Your task to perform on an android device: turn on sleep mode Image 0: 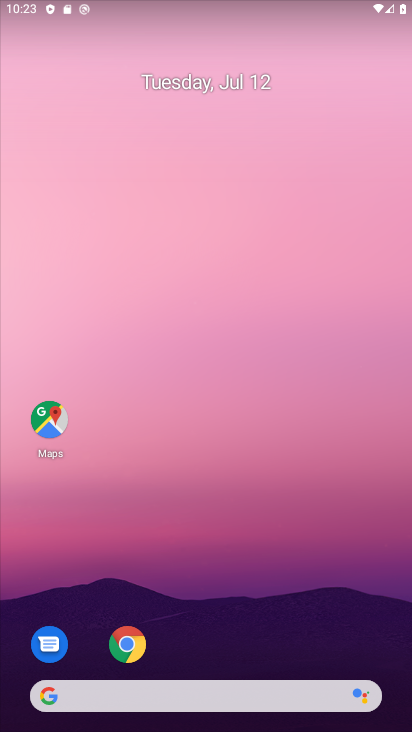
Step 0: drag from (225, 677) to (264, 288)
Your task to perform on an android device: turn on sleep mode Image 1: 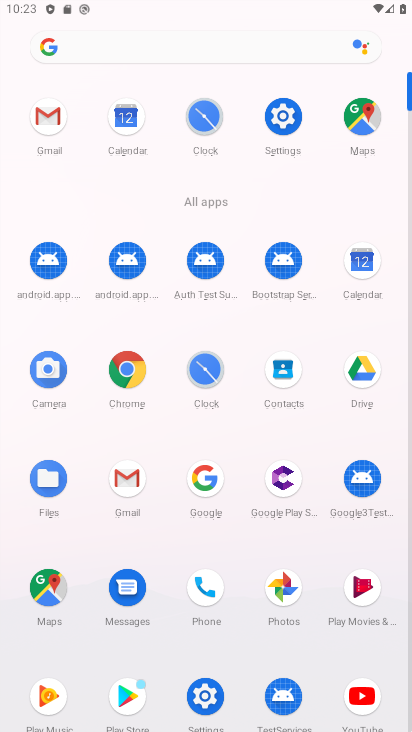
Step 1: click (281, 128)
Your task to perform on an android device: turn on sleep mode Image 2: 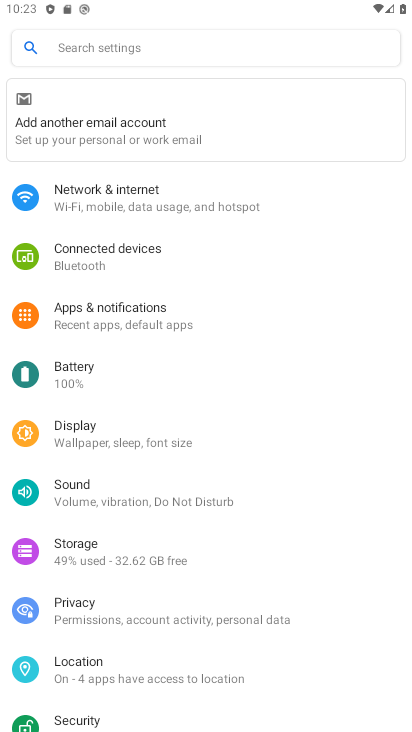
Step 2: click (165, 443)
Your task to perform on an android device: turn on sleep mode Image 3: 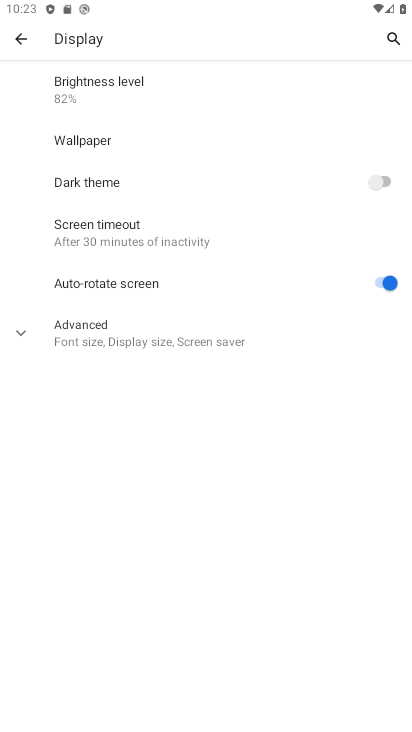
Step 3: click (126, 342)
Your task to perform on an android device: turn on sleep mode Image 4: 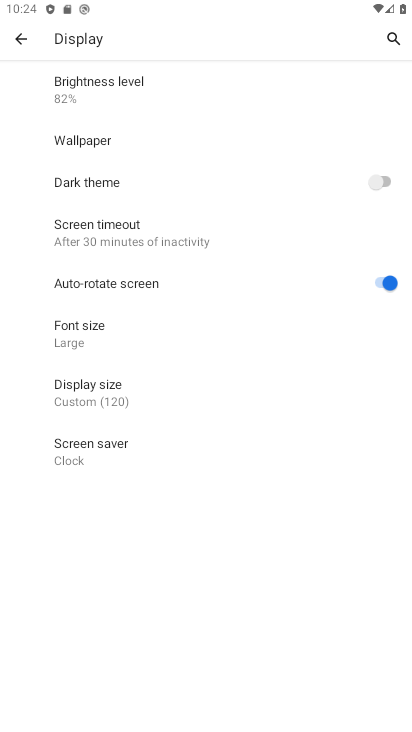
Step 4: click (113, 243)
Your task to perform on an android device: turn on sleep mode Image 5: 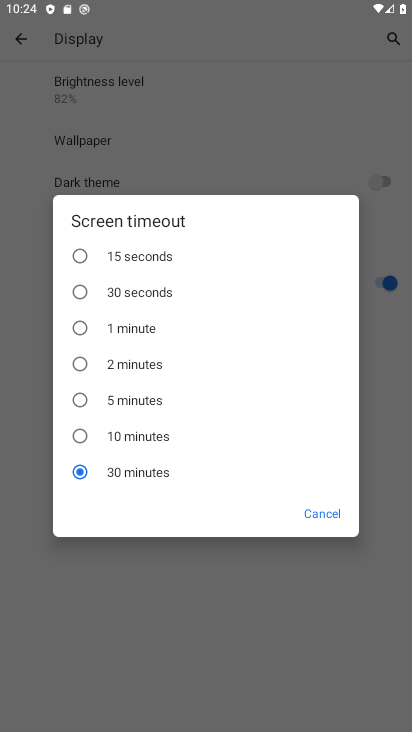
Step 5: click (151, 262)
Your task to perform on an android device: turn on sleep mode Image 6: 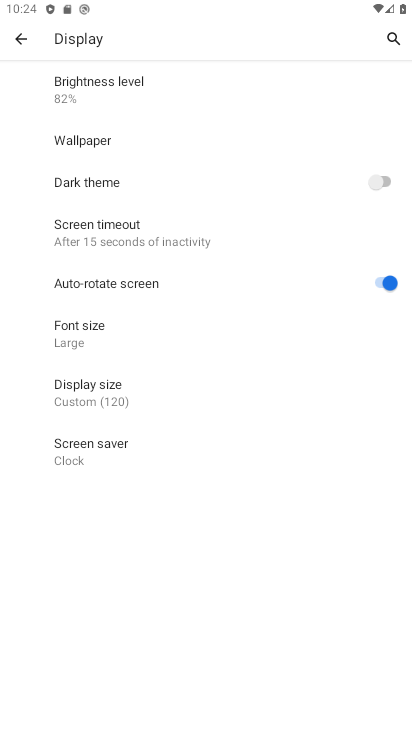
Step 6: task complete